Your task to perform on an android device: Open Amazon Image 0: 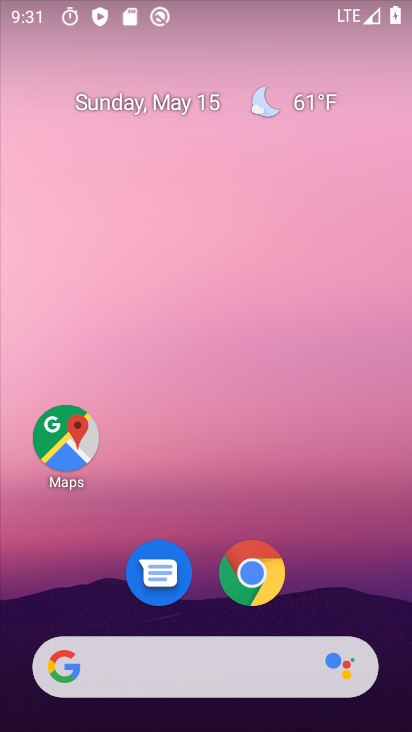
Step 0: press home button
Your task to perform on an android device: Open Amazon Image 1: 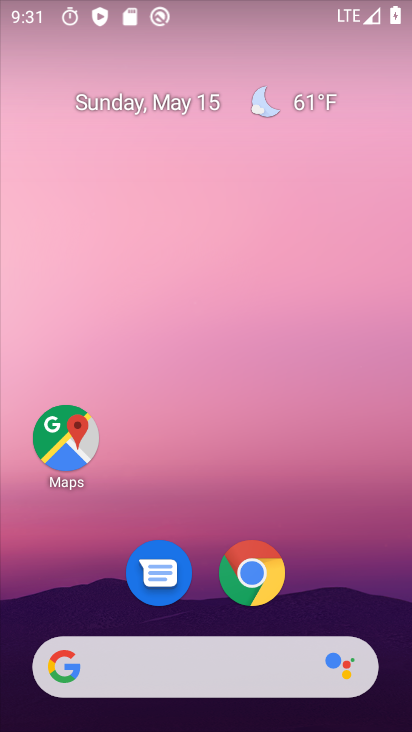
Step 1: click (249, 567)
Your task to perform on an android device: Open Amazon Image 2: 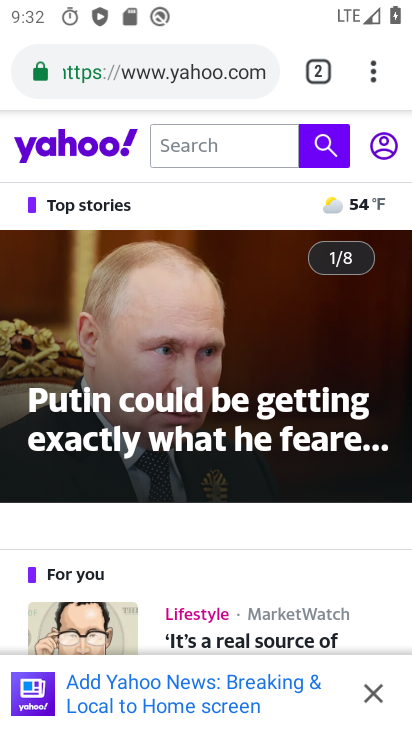
Step 2: click (332, 70)
Your task to perform on an android device: Open Amazon Image 3: 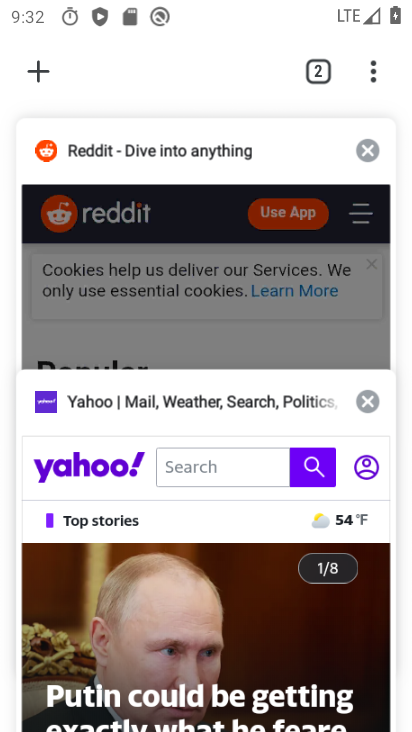
Step 3: click (369, 155)
Your task to perform on an android device: Open Amazon Image 4: 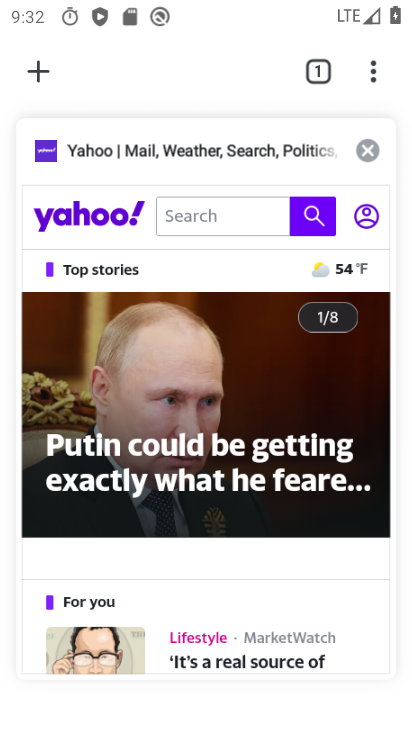
Step 4: click (41, 75)
Your task to perform on an android device: Open Amazon Image 5: 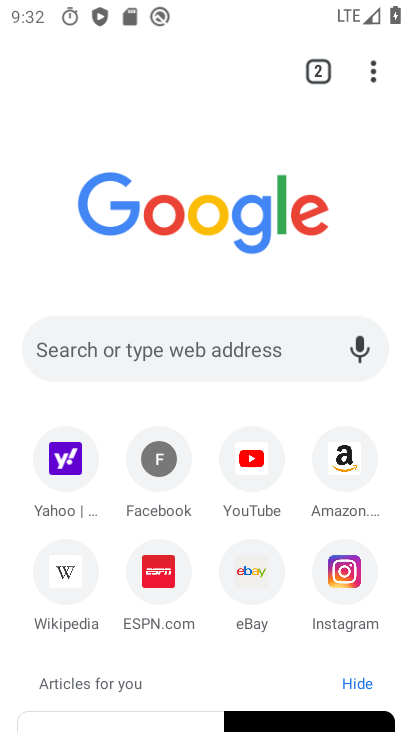
Step 5: click (342, 454)
Your task to perform on an android device: Open Amazon Image 6: 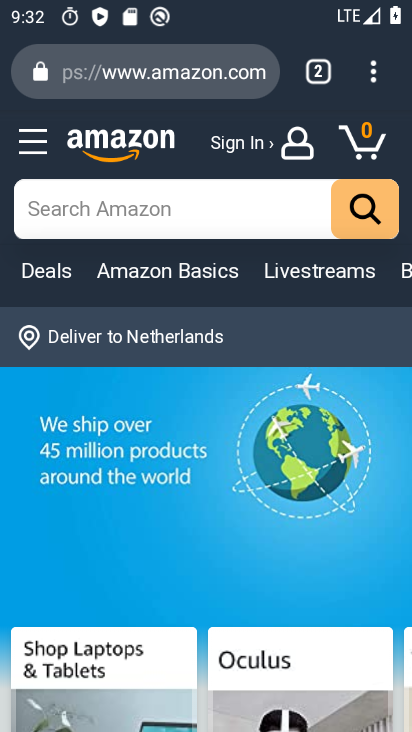
Step 6: task complete